Your task to perform on an android device: What's the weather today? Image 0: 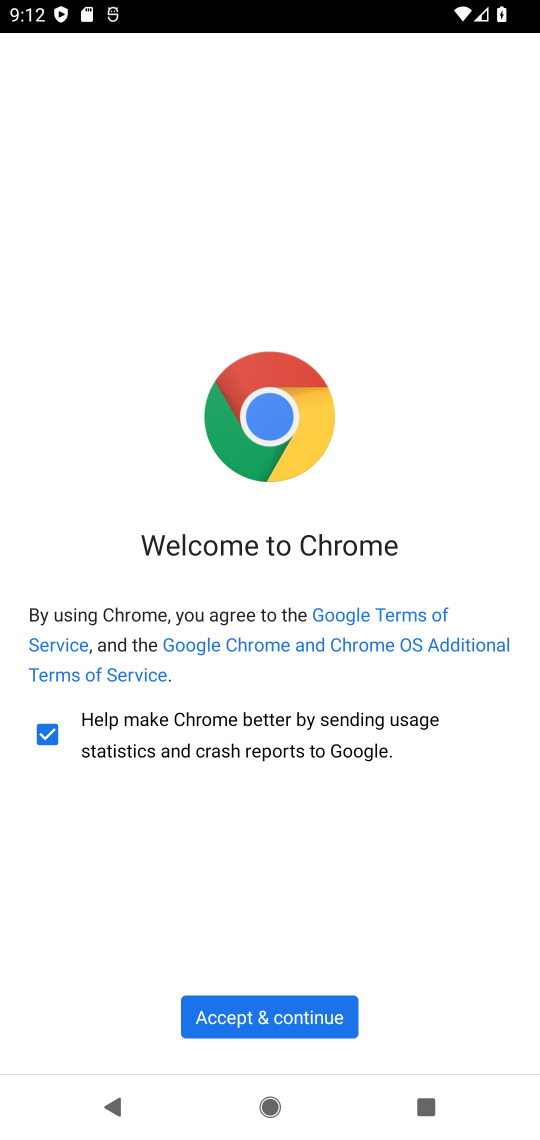
Step 0: press back button
Your task to perform on an android device: What's the weather today? Image 1: 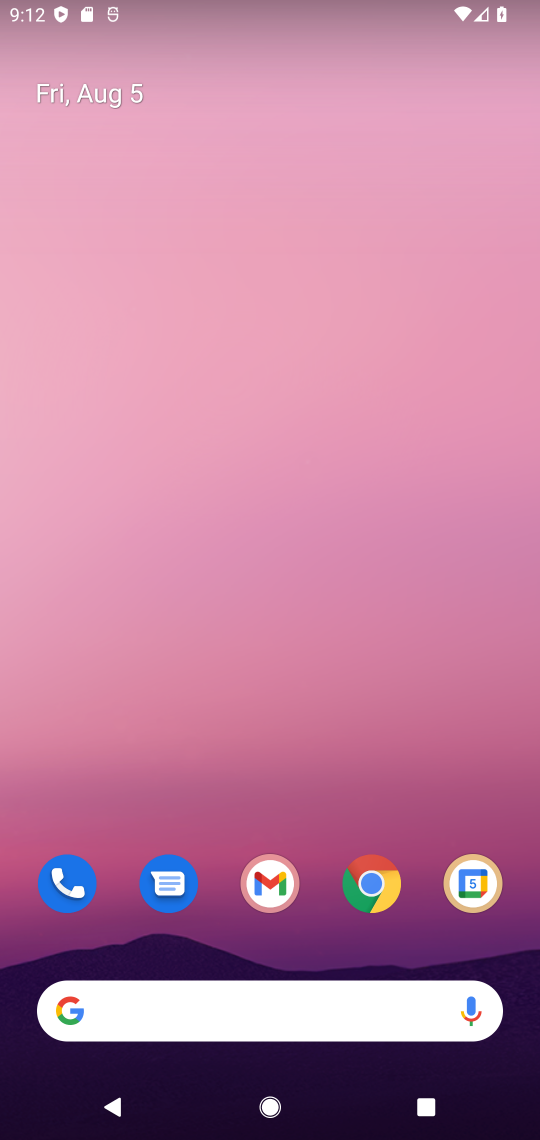
Step 1: click (208, 1021)
Your task to perform on an android device: What's the weather today? Image 2: 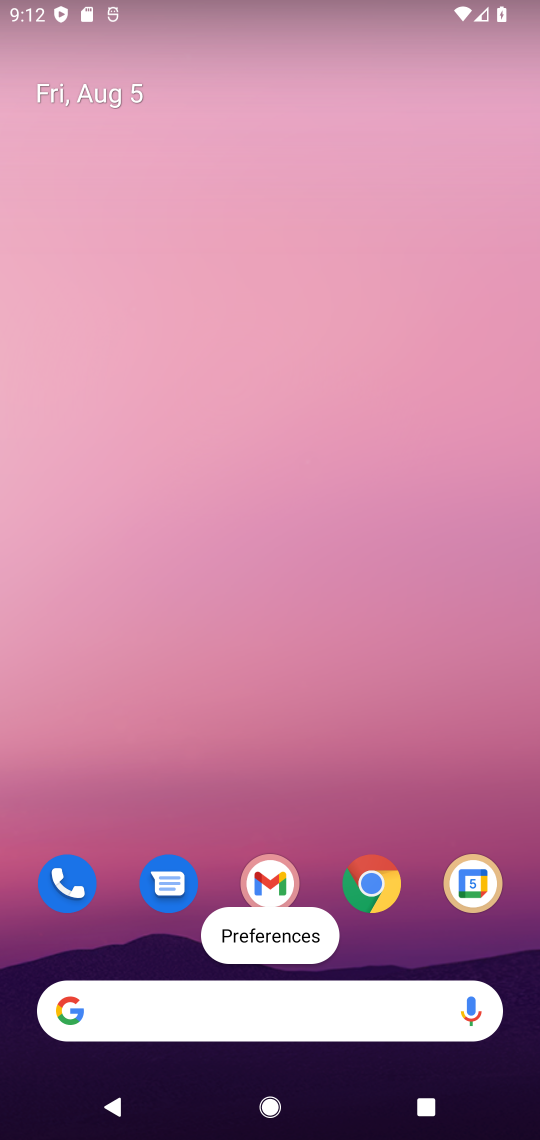
Step 2: click (199, 1017)
Your task to perform on an android device: What's the weather today? Image 3: 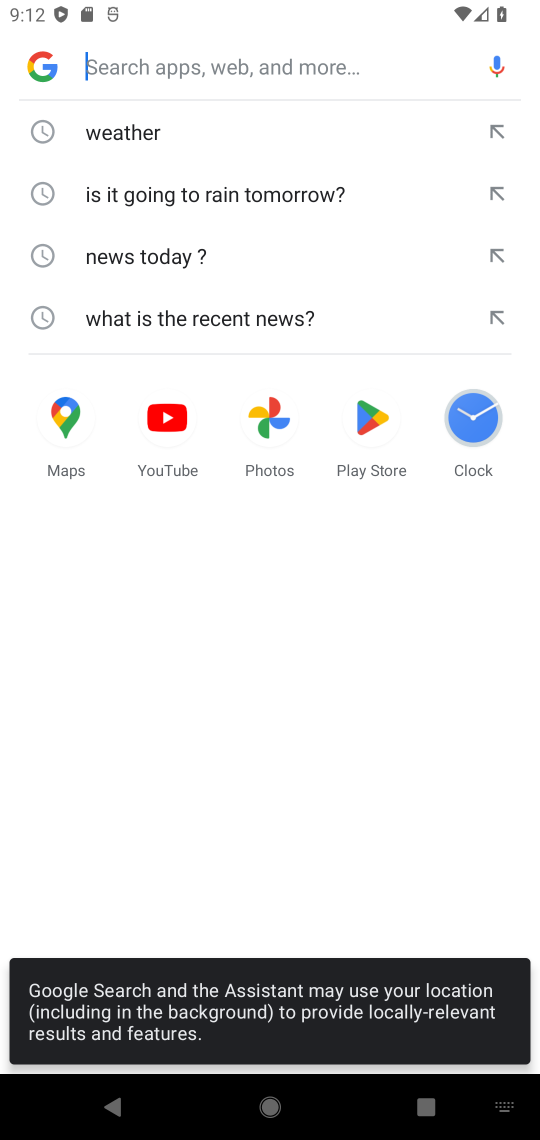
Step 3: click (143, 118)
Your task to perform on an android device: What's the weather today? Image 4: 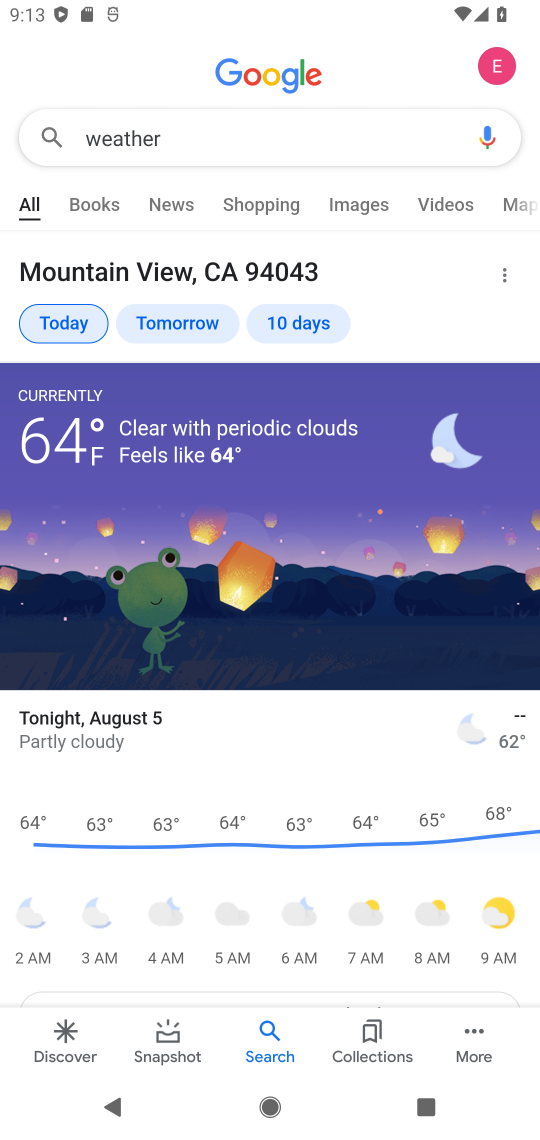
Step 4: click (83, 323)
Your task to perform on an android device: What's the weather today? Image 5: 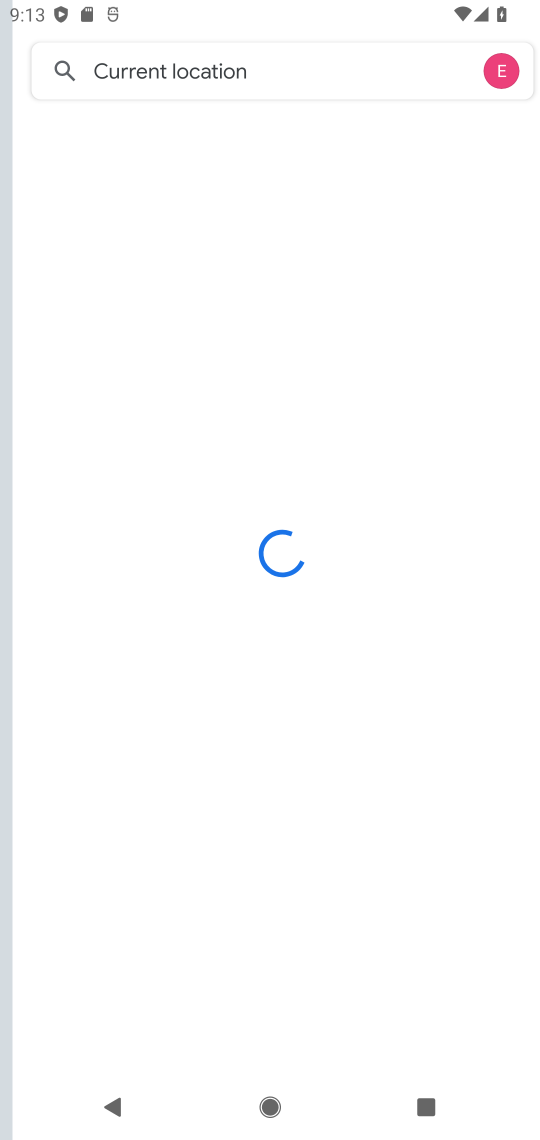
Step 5: task complete